Your task to perform on an android device: Toggle the flashlight Image 0: 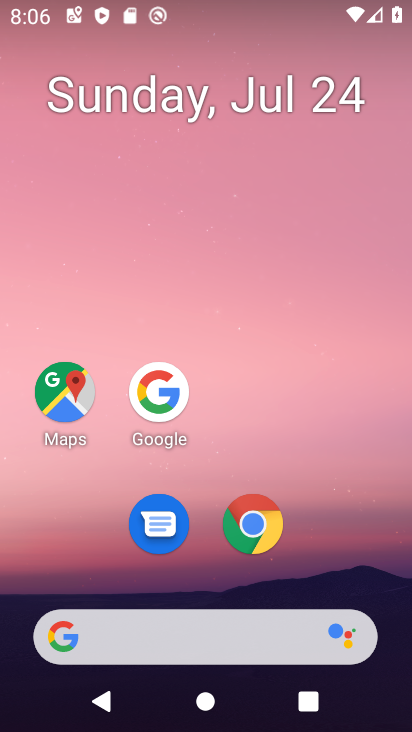
Step 0: press home button
Your task to perform on an android device: Toggle the flashlight Image 1: 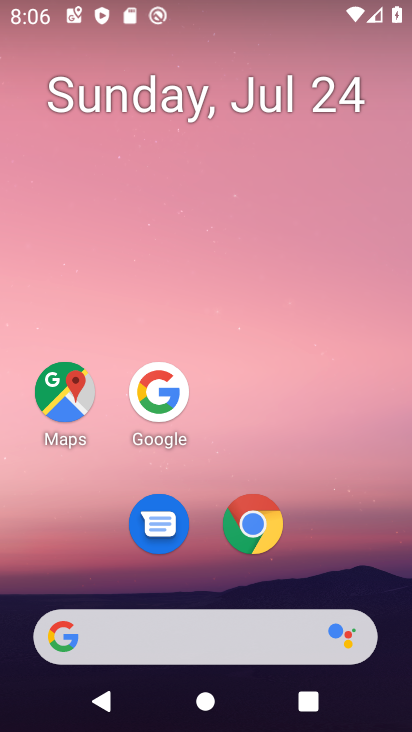
Step 1: task complete